Your task to perform on an android device: Look up the best rated gaming chair on Target. Image 0: 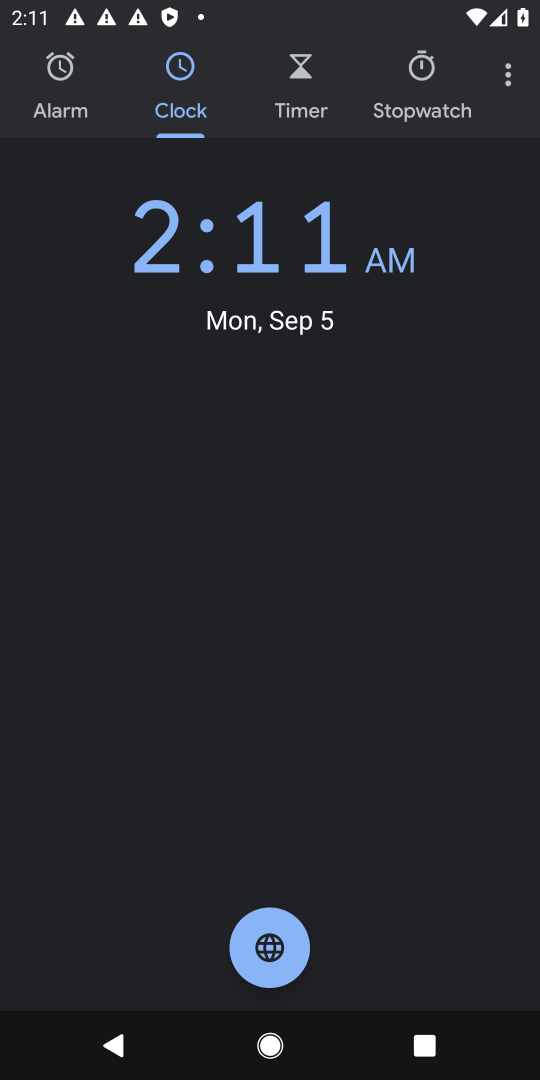
Step 0: press home button
Your task to perform on an android device: Look up the best rated gaming chair on Target. Image 1: 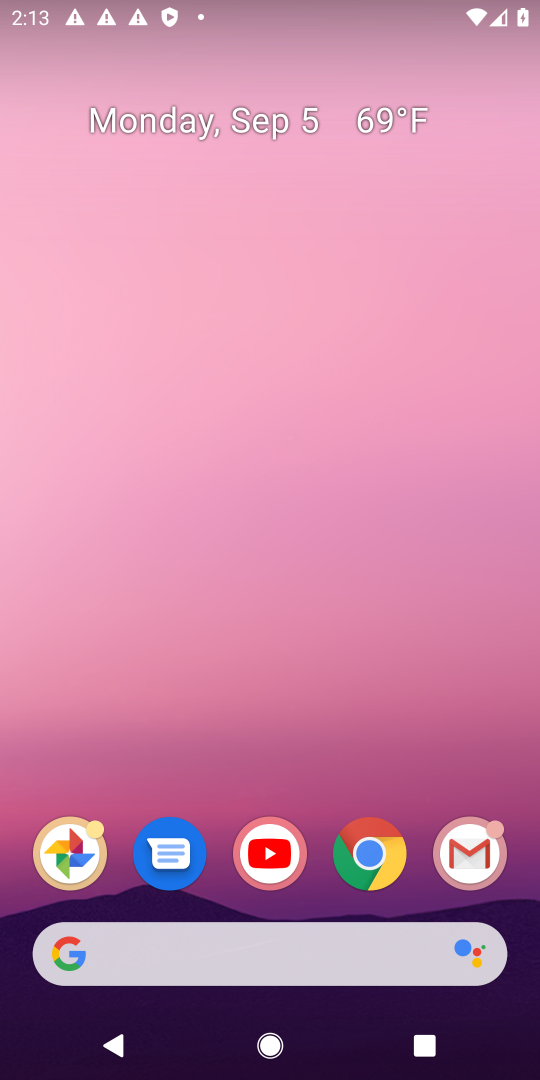
Step 1: click (311, 303)
Your task to perform on an android device: Look up the best rated gaming chair on Target. Image 2: 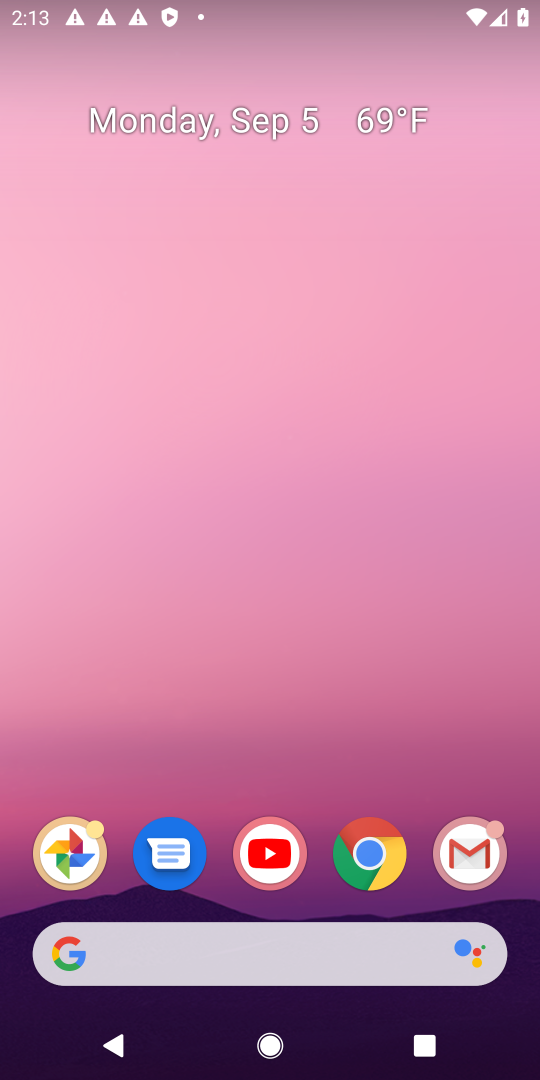
Step 2: drag from (234, 828) to (248, 226)
Your task to perform on an android device: Look up the best rated gaming chair on Target. Image 3: 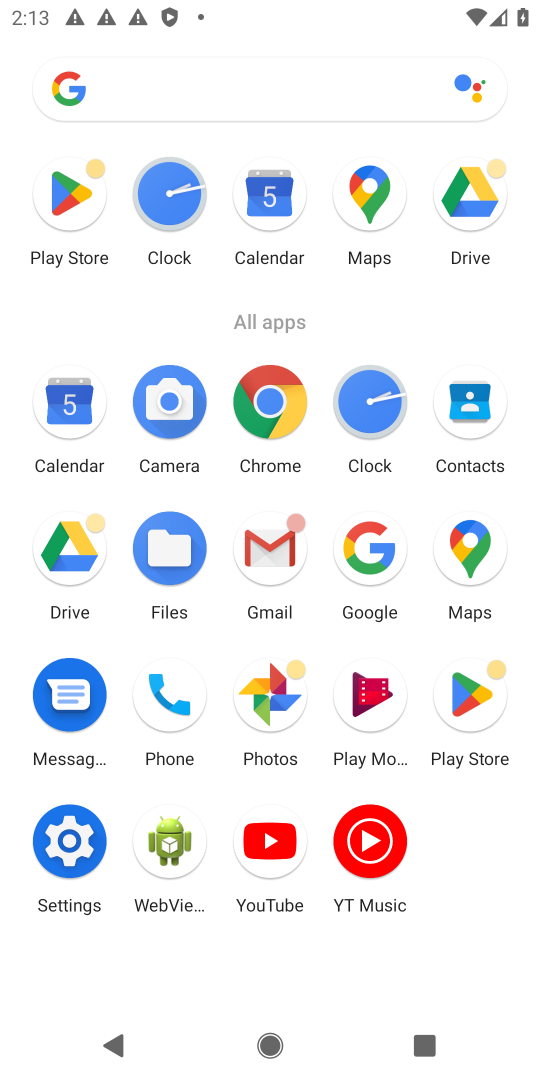
Step 3: click (374, 555)
Your task to perform on an android device: Look up the best rated gaming chair on Target. Image 4: 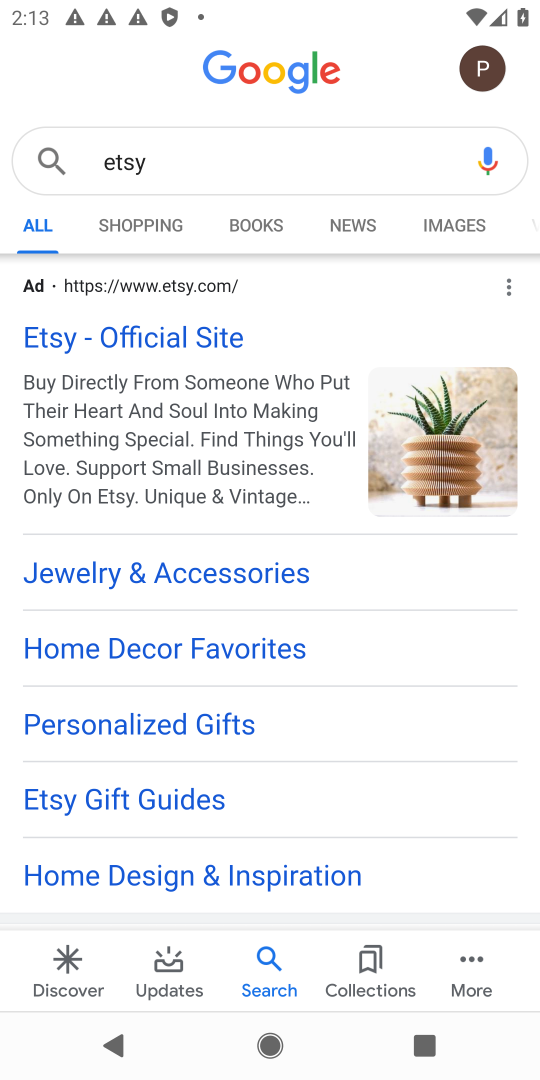
Step 4: click (197, 167)
Your task to perform on an android device: Look up the best rated gaming chair on Target. Image 5: 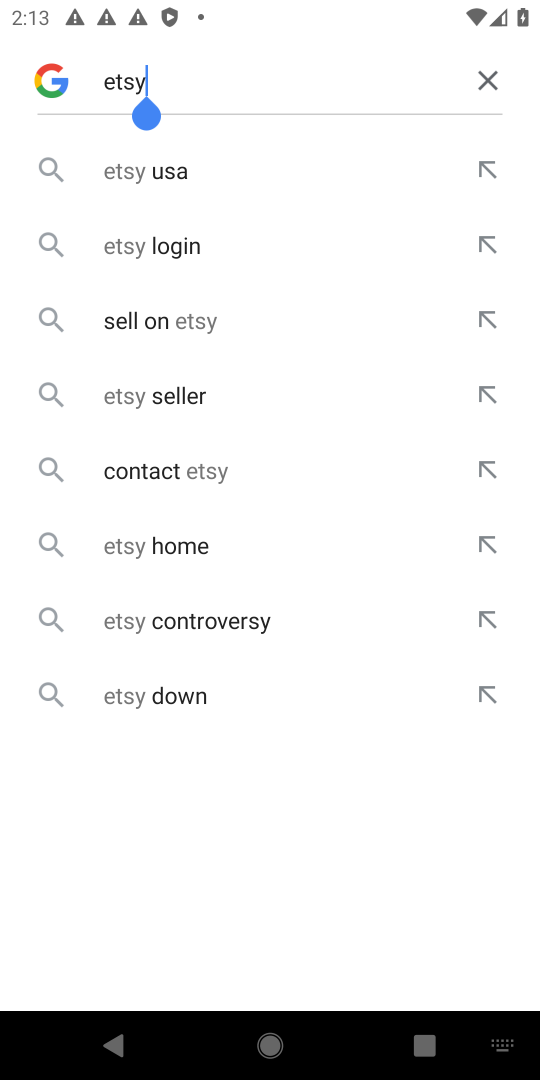
Step 5: click (490, 85)
Your task to perform on an android device: Look up the best rated gaming chair on Target. Image 6: 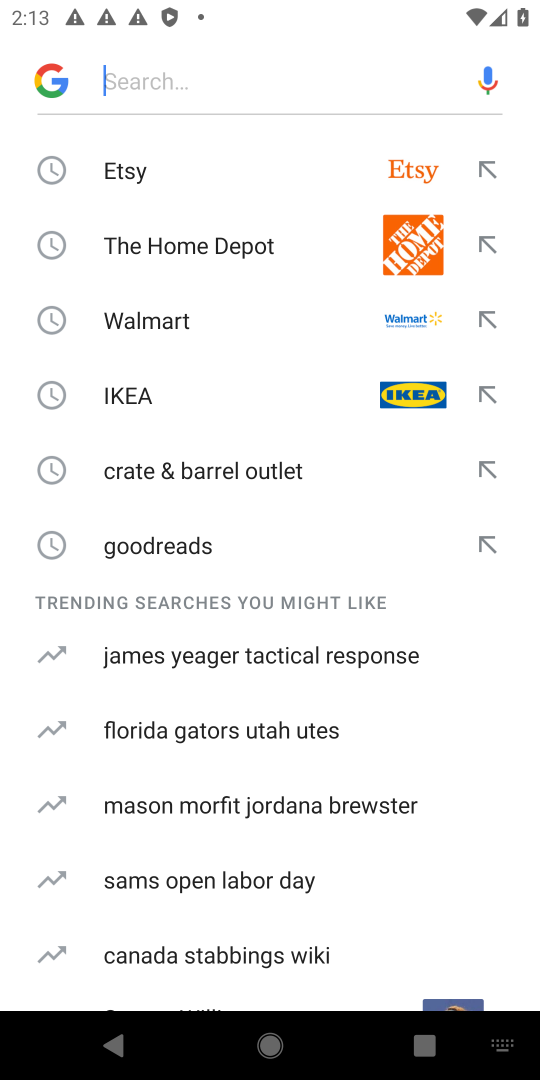
Step 6: type "Target"
Your task to perform on an android device: Look up the best rated gaming chair on Target. Image 7: 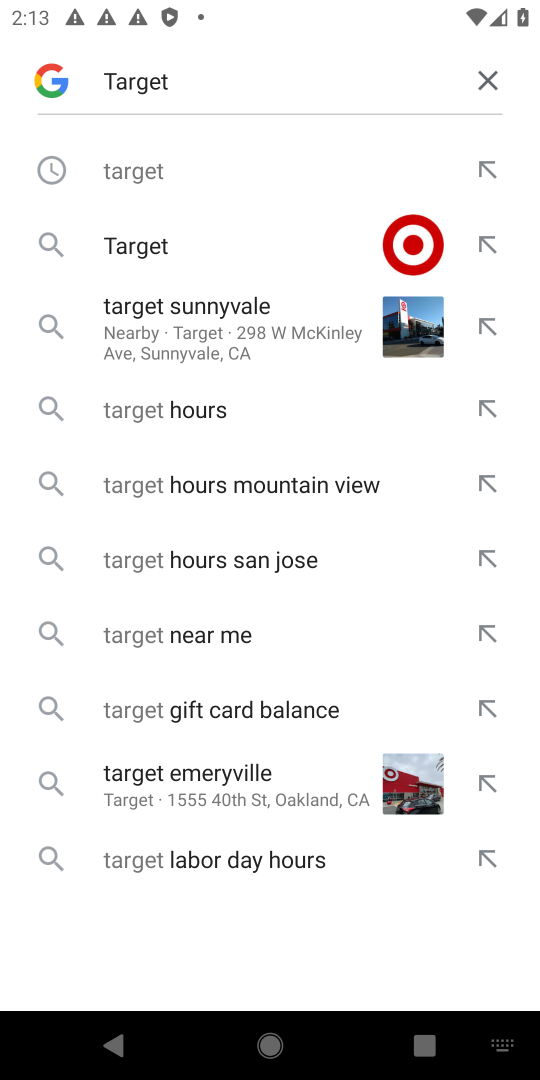
Step 7: click (152, 171)
Your task to perform on an android device: Look up the best rated gaming chair on Target. Image 8: 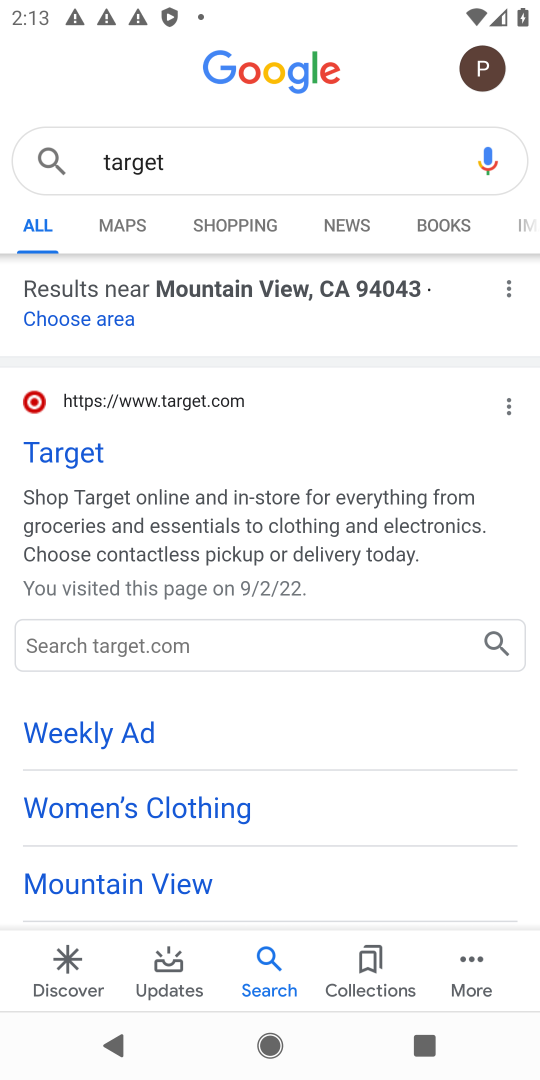
Step 8: click (53, 453)
Your task to perform on an android device: Look up the best rated gaming chair on Target. Image 9: 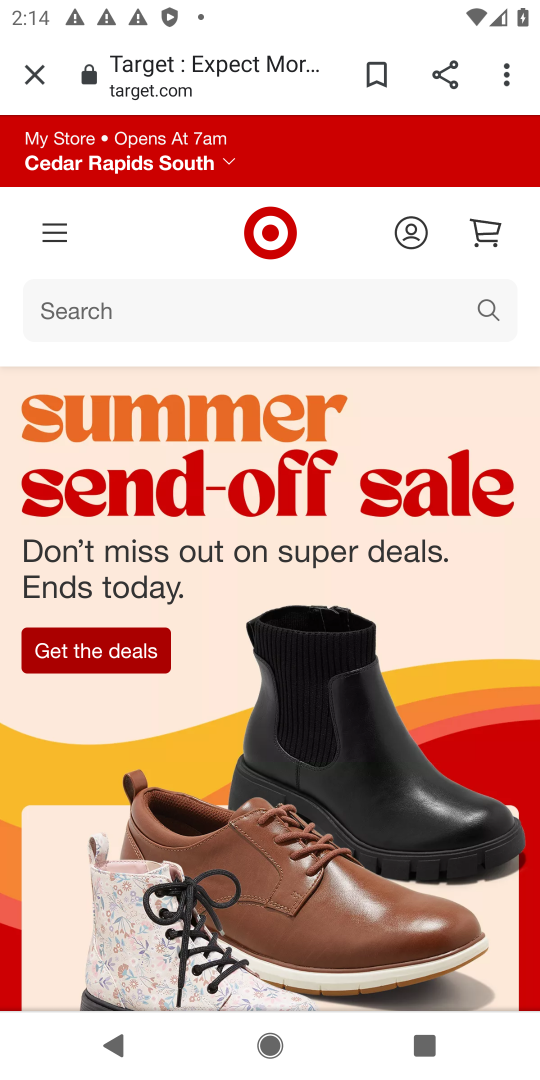
Step 9: click (102, 325)
Your task to perform on an android device: Look up the best rated gaming chair on Target. Image 10: 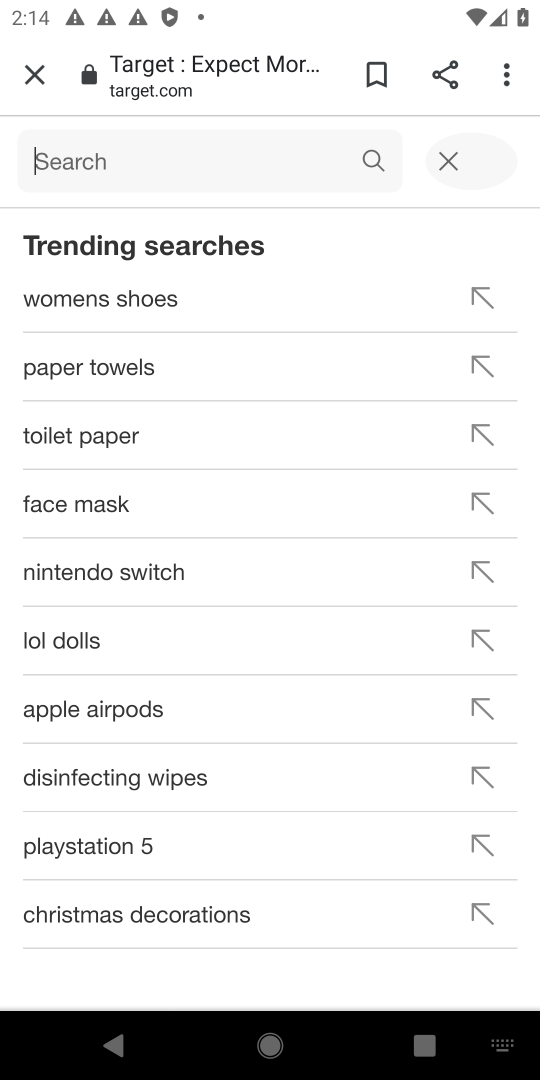
Step 10: type "best rated gaming chair"
Your task to perform on an android device: Look up the best rated gaming chair on Target. Image 11: 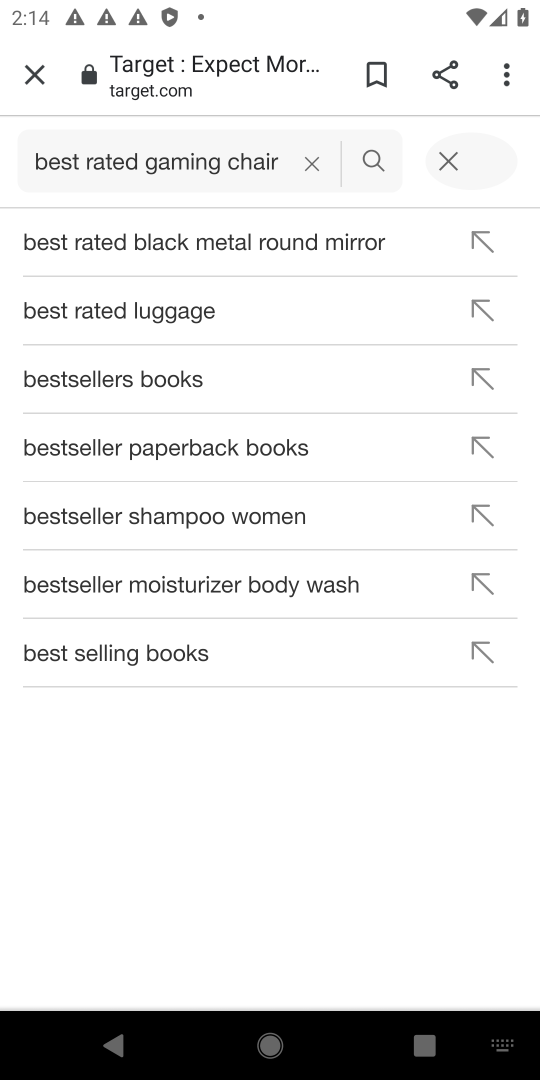
Step 11: click (79, 259)
Your task to perform on an android device: Look up the best rated gaming chair on Target. Image 12: 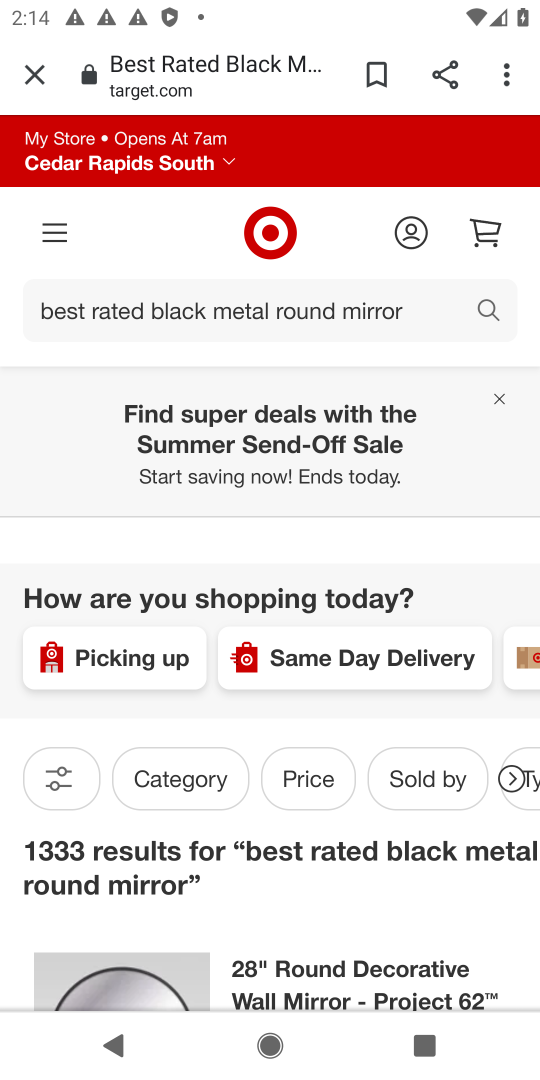
Step 12: task complete